Your task to perform on an android device: Open Google Maps and go to "Timeline" Image 0: 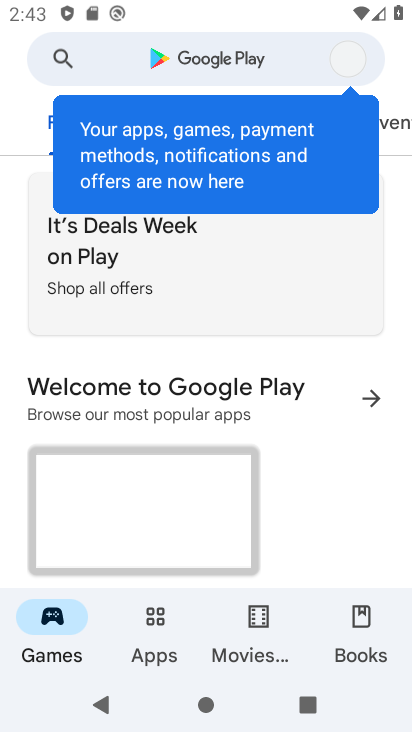
Step 0: press home button
Your task to perform on an android device: Open Google Maps and go to "Timeline" Image 1: 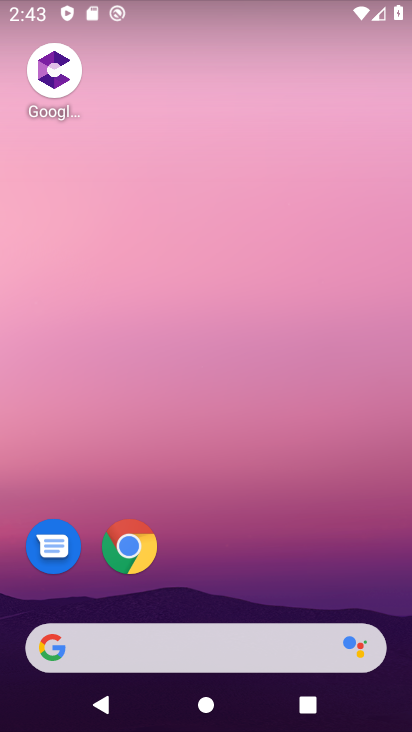
Step 1: drag from (223, 558) to (360, 86)
Your task to perform on an android device: Open Google Maps and go to "Timeline" Image 2: 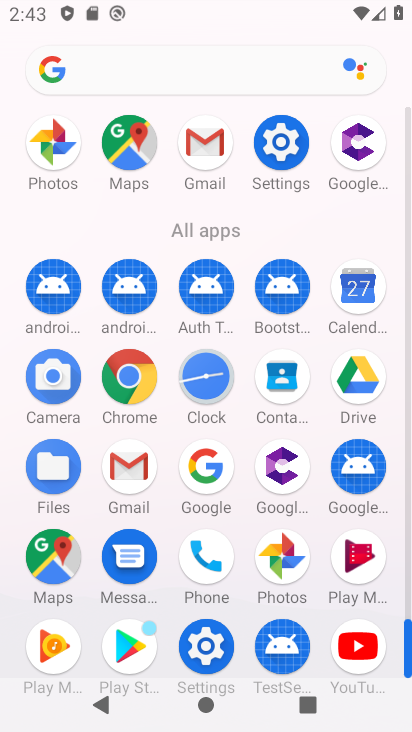
Step 2: click (63, 565)
Your task to perform on an android device: Open Google Maps and go to "Timeline" Image 3: 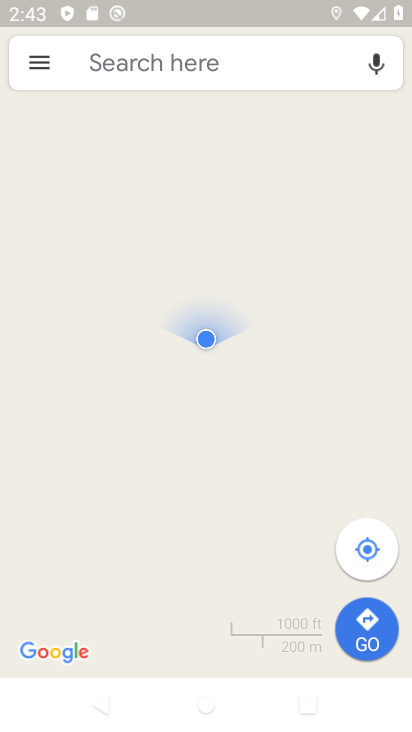
Step 3: click (48, 70)
Your task to perform on an android device: Open Google Maps and go to "Timeline" Image 4: 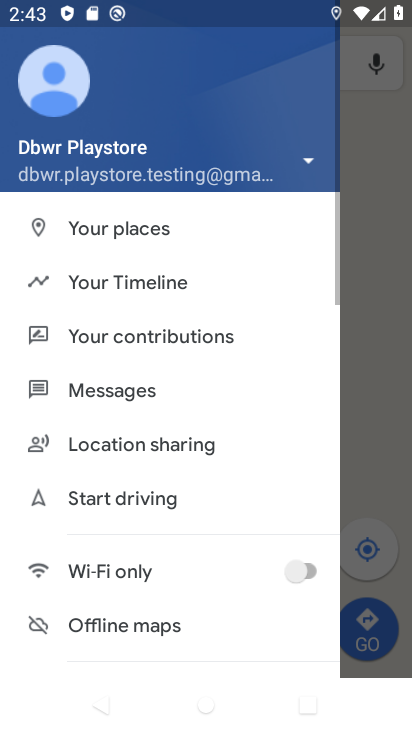
Step 4: drag from (154, 570) to (230, 342)
Your task to perform on an android device: Open Google Maps and go to "Timeline" Image 5: 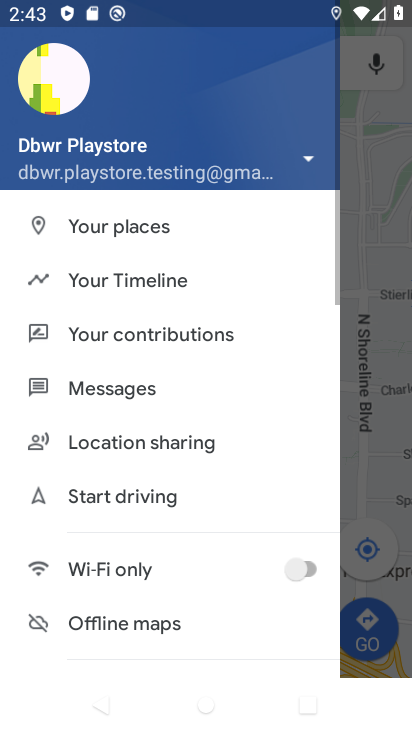
Step 5: click (166, 274)
Your task to perform on an android device: Open Google Maps and go to "Timeline" Image 6: 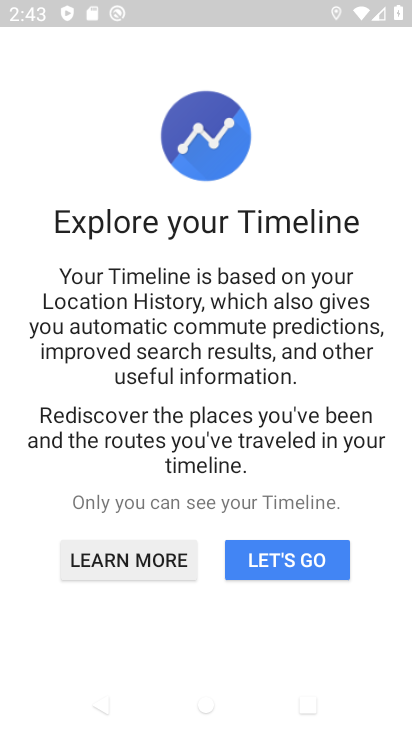
Step 6: click (297, 562)
Your task to perform on an android device: Open Google Maps and go to "Timeline" Image 7: 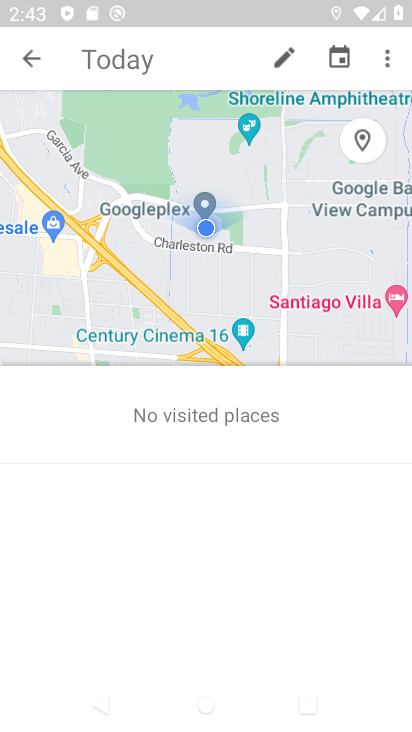
Step 7: task complete